Your task to perform on an android device: Open Maps and search for coffee Image 0: 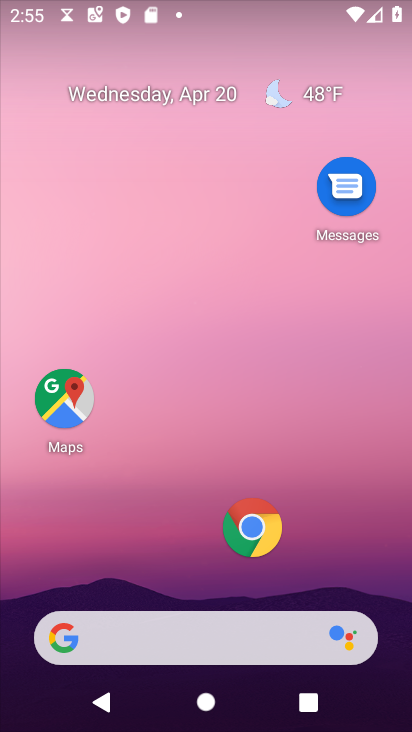
Step 0: drag from (198, 633) to (359, 37)
Your task to perform on an android device: Open Maps and search for coffee Image 1: 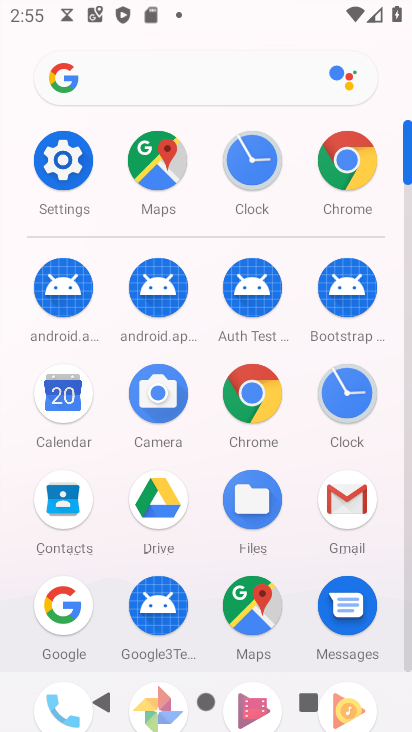
Step 1: click (158, 170)
Your task to perform on an android device: Open Maps and search for coffee Image 2: 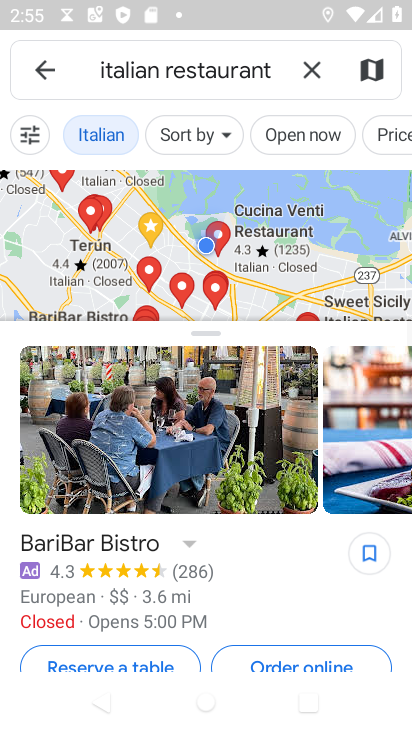
Step 2: click (306, 70)
Your task to perform on an android device: Open Maps and search for coffee Image 3: 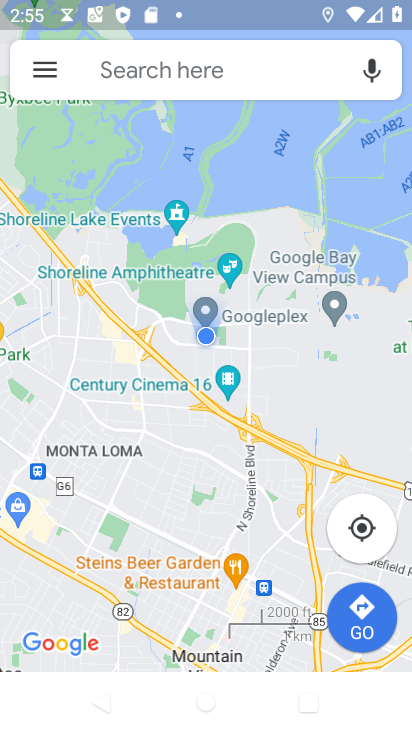
Step 3: click (191, 64)
Your task to perform on an android device: Open Maps and search for coffee Image 4: 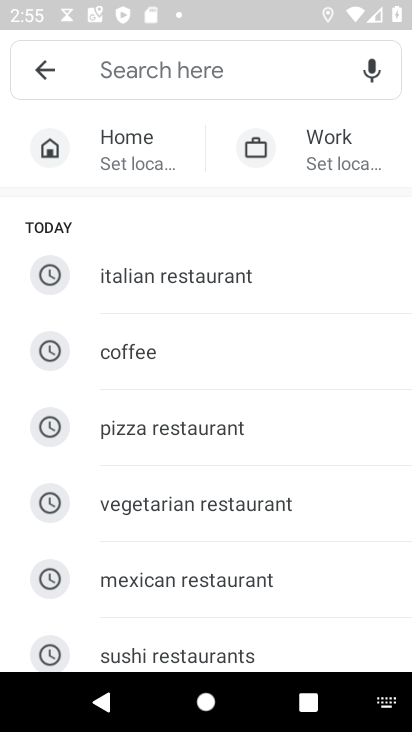
Step 4: click (118, 356)
Your task to perform on an android device: Open Maps and search for coffee Image 5: 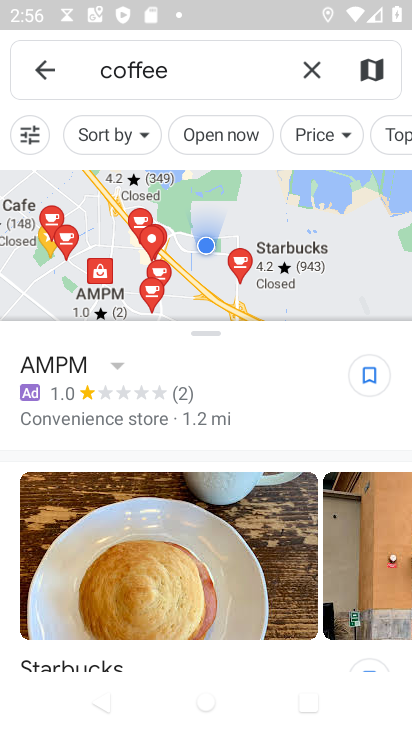
Step 5: task complete